Your task to perform on an android device: Show me the best 1080p monitor on Target.com Image 0: 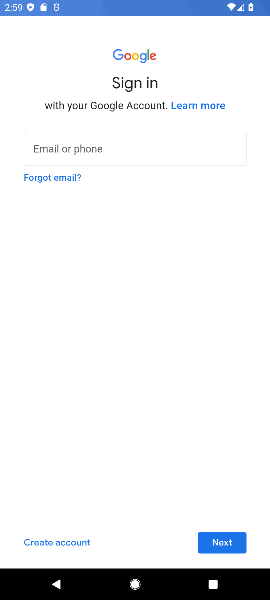
Step 0: press home button
Your task to perform on an android device: Show me the best 1080p monitor on Target.com Image 1: 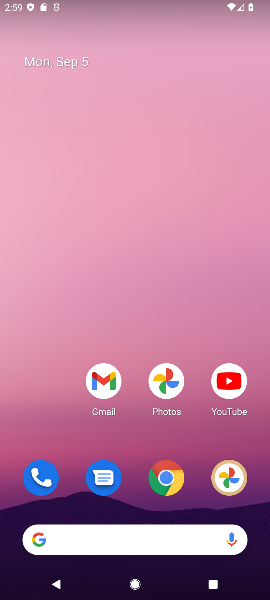
Step 1: drag from (197, 448) to (210, 88)
Your task to perform on an android device: Show me the best 1080p monitor on Target.com Image 2: 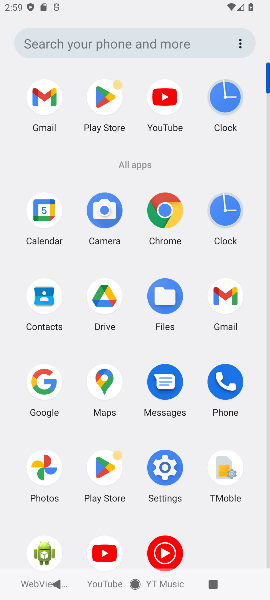
Step 2: click (169, 212)
Your task to perform on an android device: Show me the best 1080p monitor on Target.com Image 3: 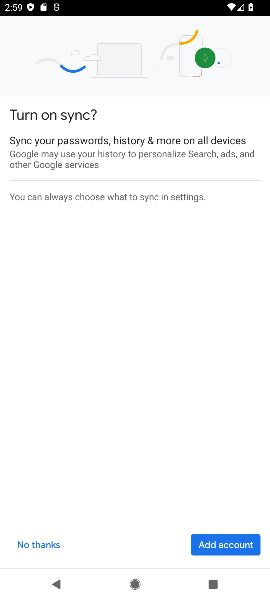
Step 3: task complete